Your task to perform on an android device: change your default location settings in chrome Image 0: 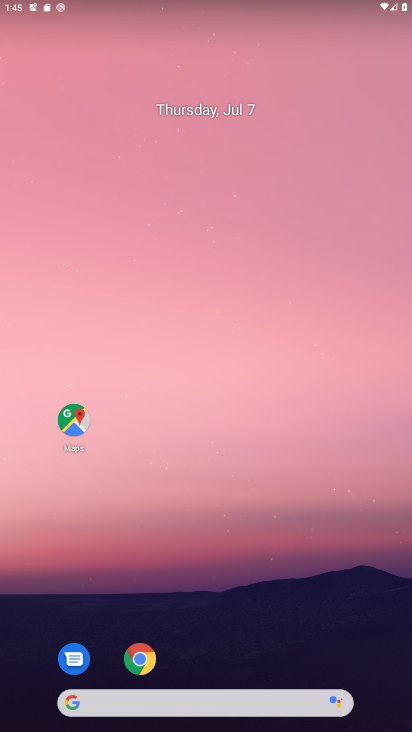
Step 0: drag from (190, 684) to (256, 173)
Your task to perform on an android device: change your default location settings in chrome Image 1: 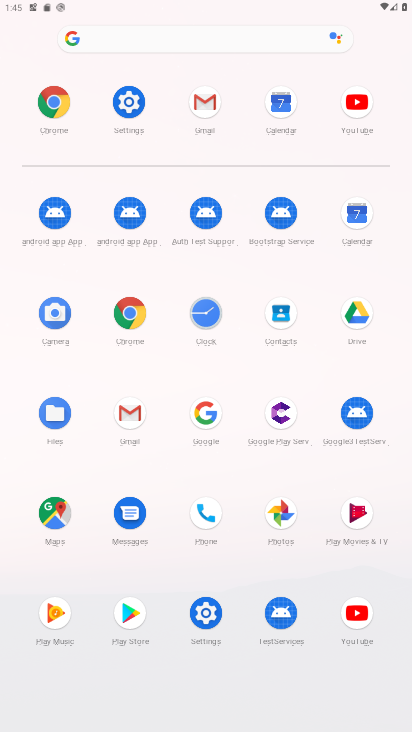
Step 1: click (133, 310)
Your task to perform on an android device: change your default location settings in chrome Image 2: 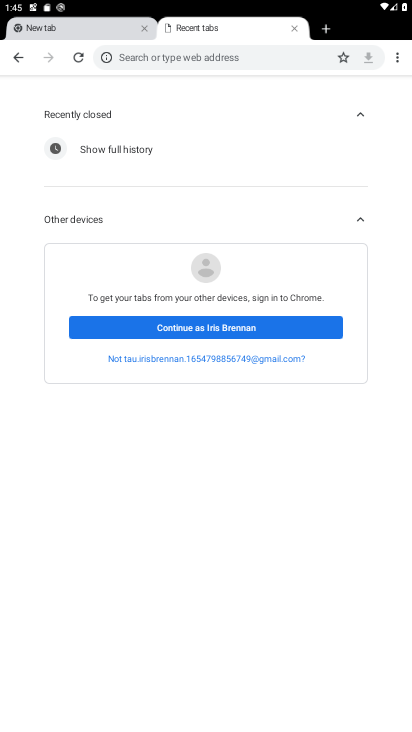
Step 2: drag from (402, 61) to (322, 265)
Your task to perform on an android device: change your default location settings in chrome Image 3: 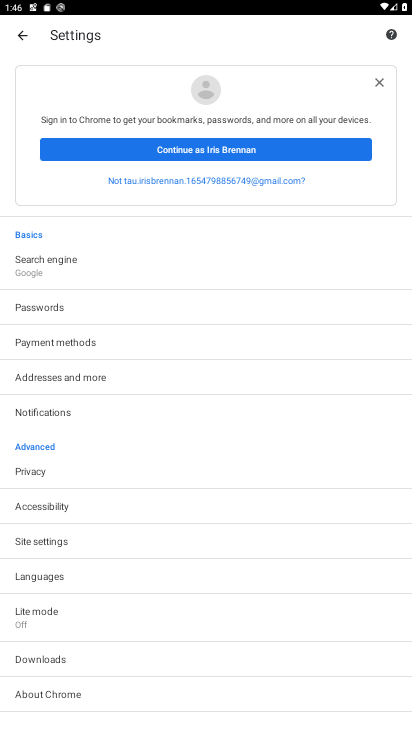
Step 3: click (50, 544)
Your task to perform on an android device: change your default location settings in chrome Image 4: 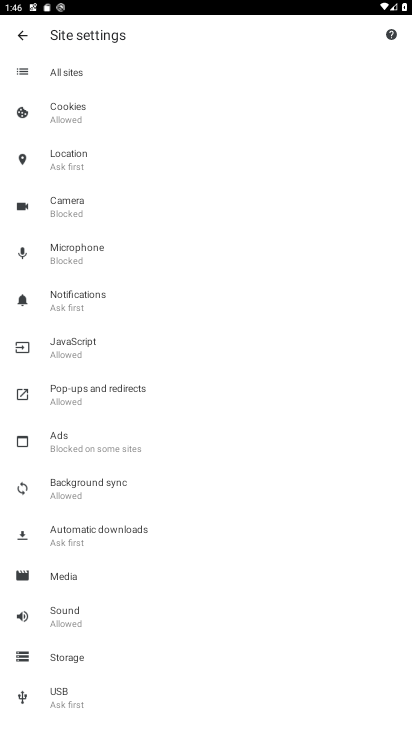
Step 4: click (102, 151)
Your task to perform on an android device: change your default location settings in chrome Image 5: 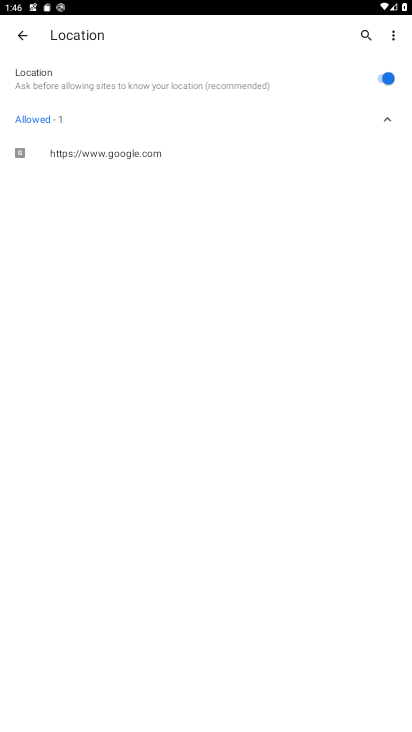
Step 5: drag from (246, 405) to (264, 219)
Your task to perform on an android device: change your default location settings in chrome Image 6: 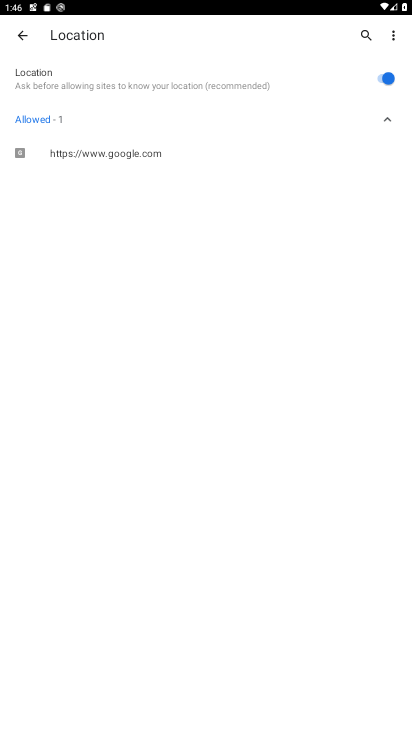
Step 6: drag from (263, 186) to (258, 612)
Your task to perform on an android device: change your default location settings in chrome Image 7: 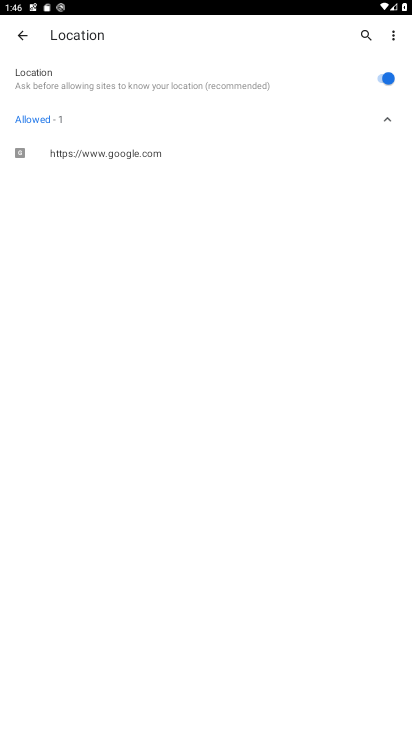
Step 7: click (383, 72)
Your task to perform on an android device: change your default location settings in chrome Image 8: 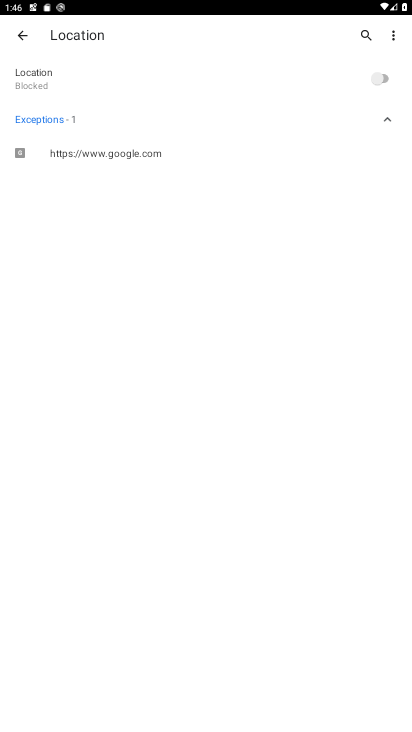
Step 8: task complete